Your task to perform on an android device: install app "Firefox Browser" Image 0: 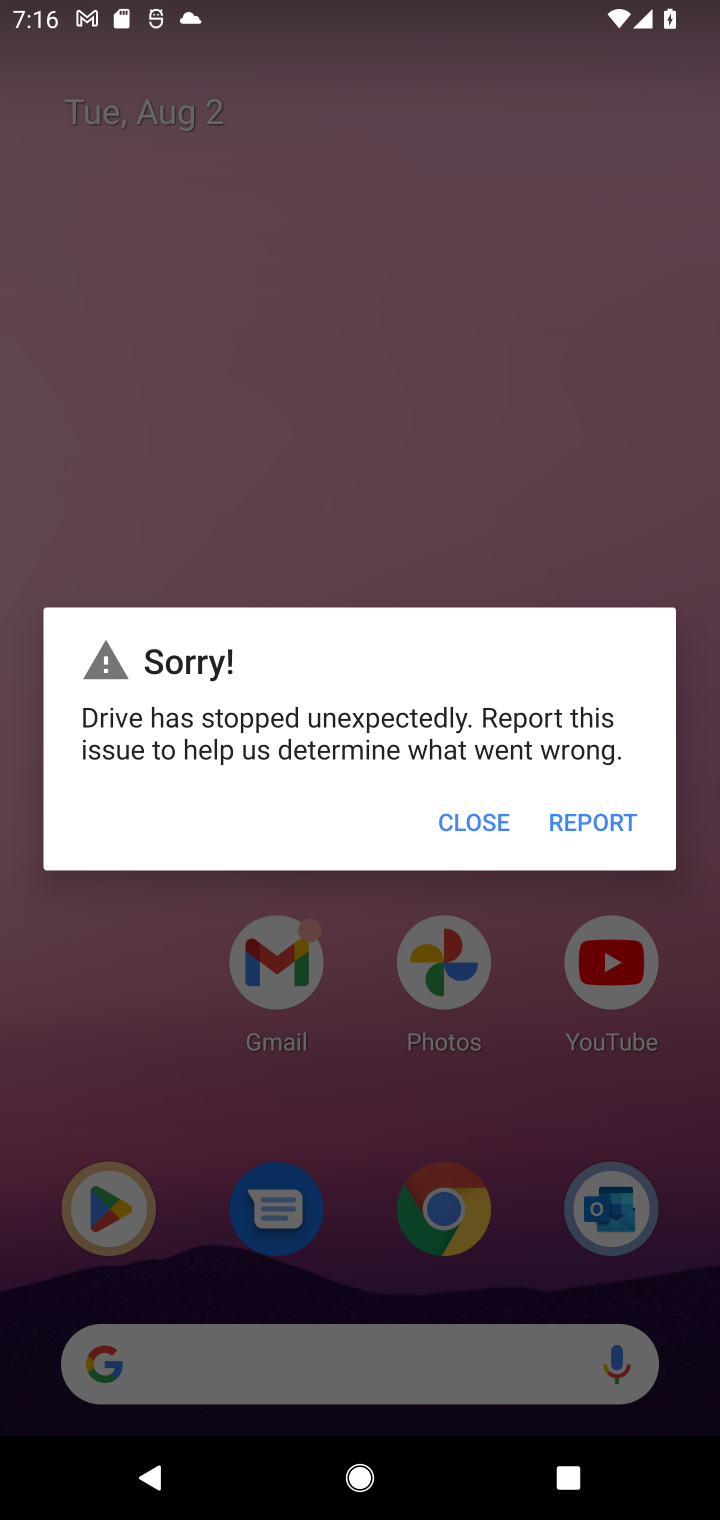
Step 0: press home button
Your task to perform on an android device: install app "Firefox Browser" Image 1: 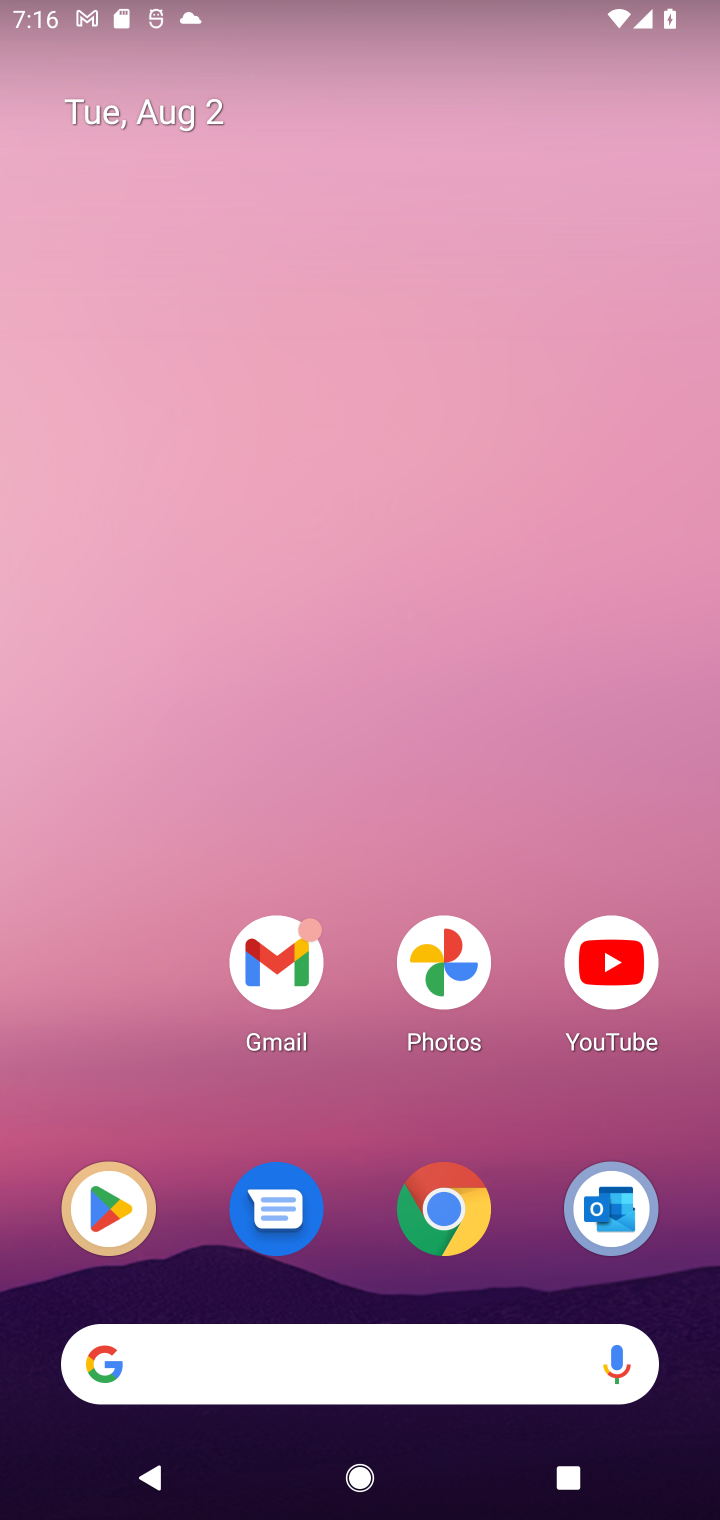
Step 1: drag from (406, 1130) to (389, 574)
Your task to perform on an android device: install app "Firefox Browser" Image 2: 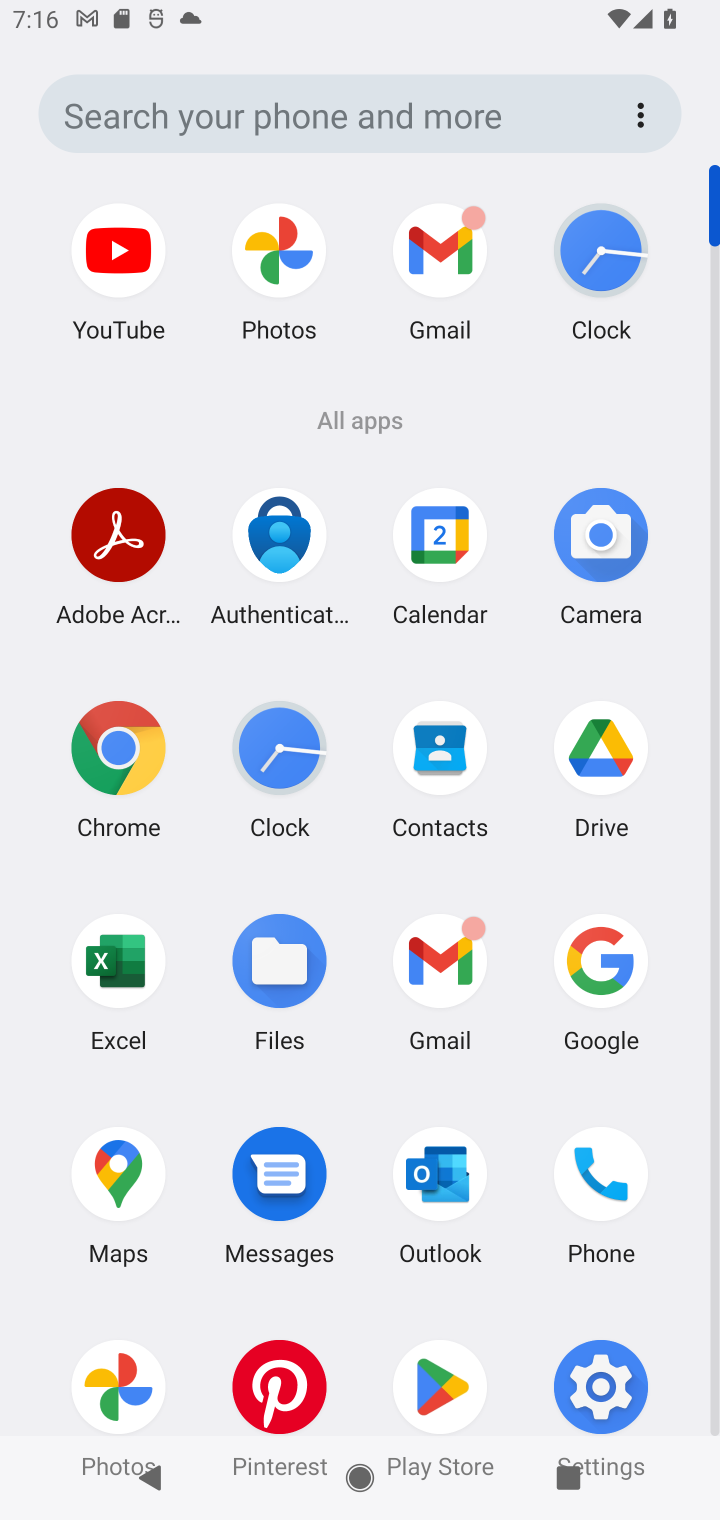
Step 2: click (445, 1384)
Your task to perform on an android device: install app "Firefox Browser" Image 3: 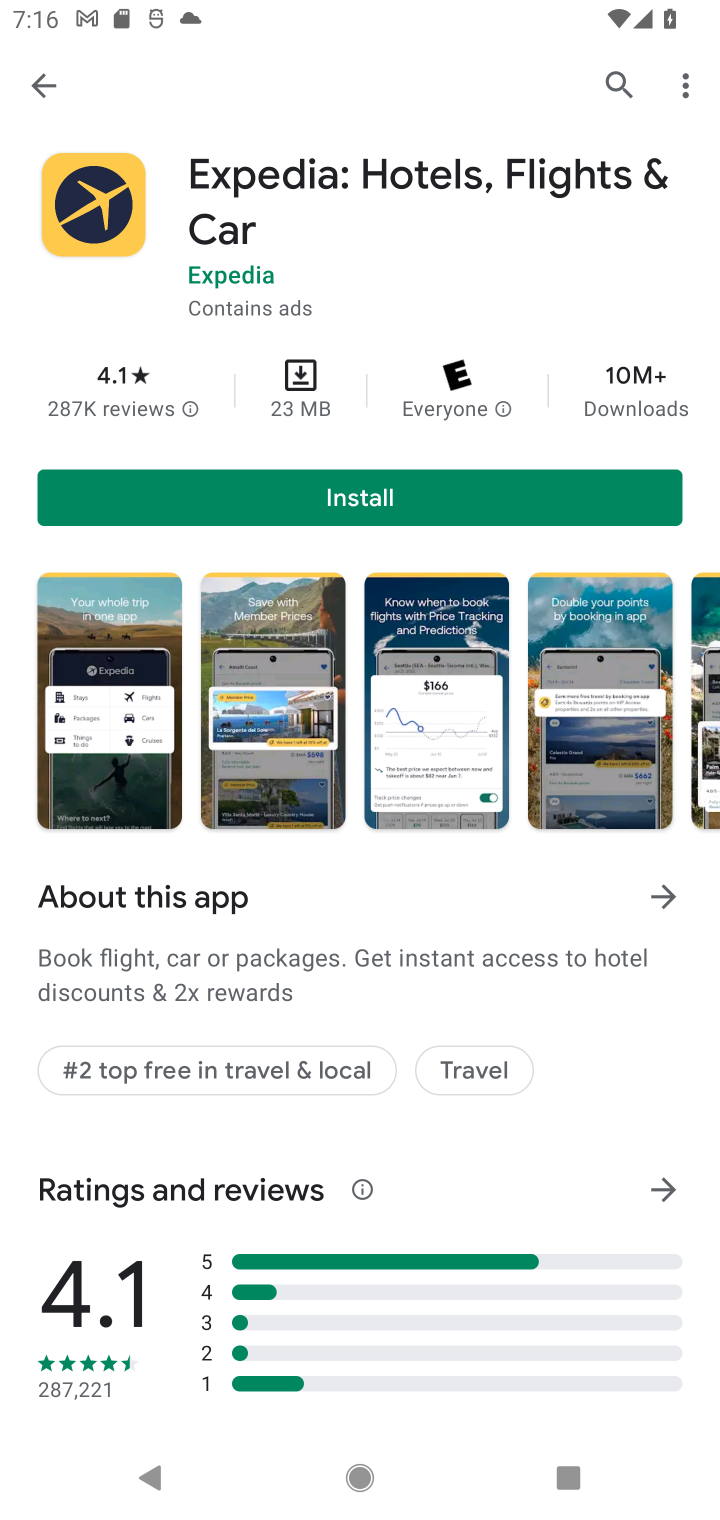
Step 3: click (608, 75)
Your task to perform on an android device: install app "Firefox Browser" Image 4: 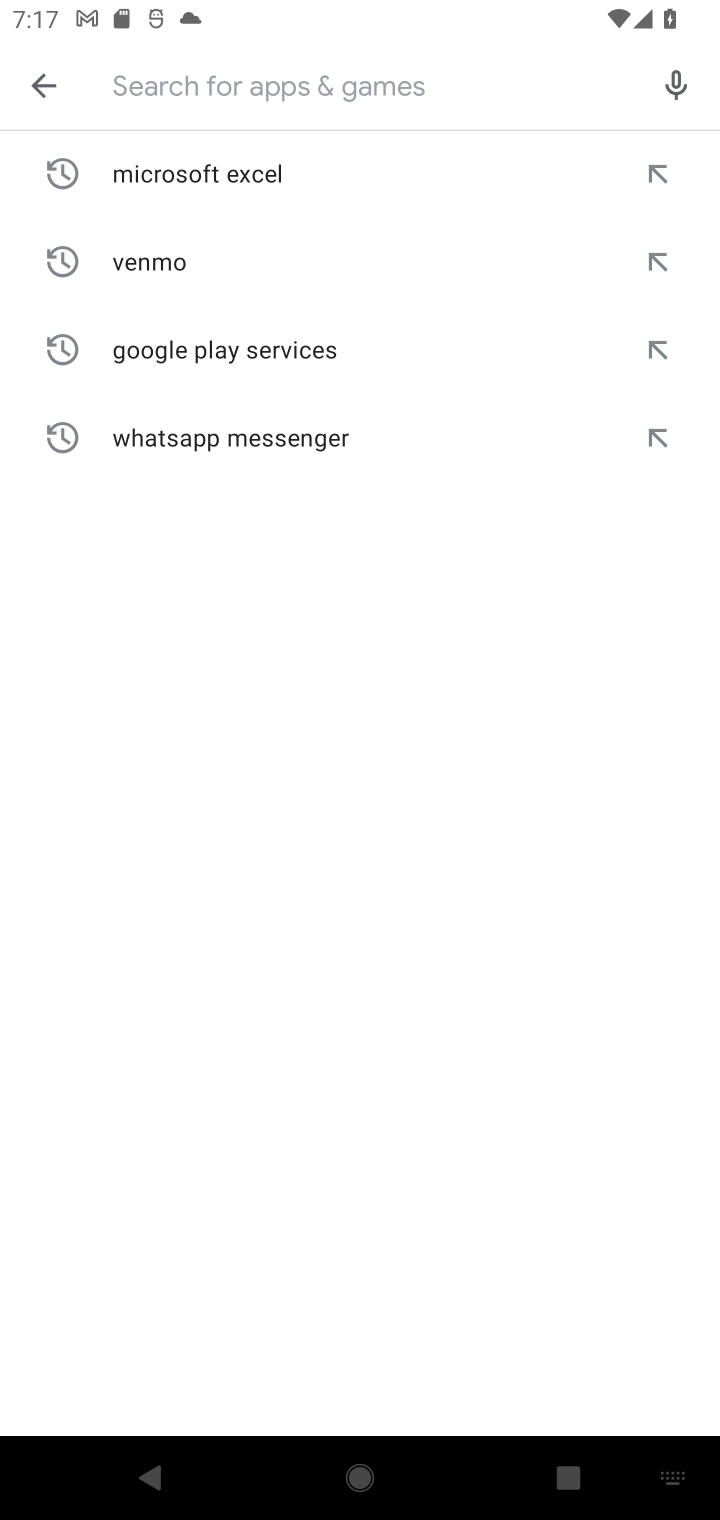
Step 4: type "Firefox Browser"
Your task to perform on an android device: install app "Firefox Browser" Image 5: 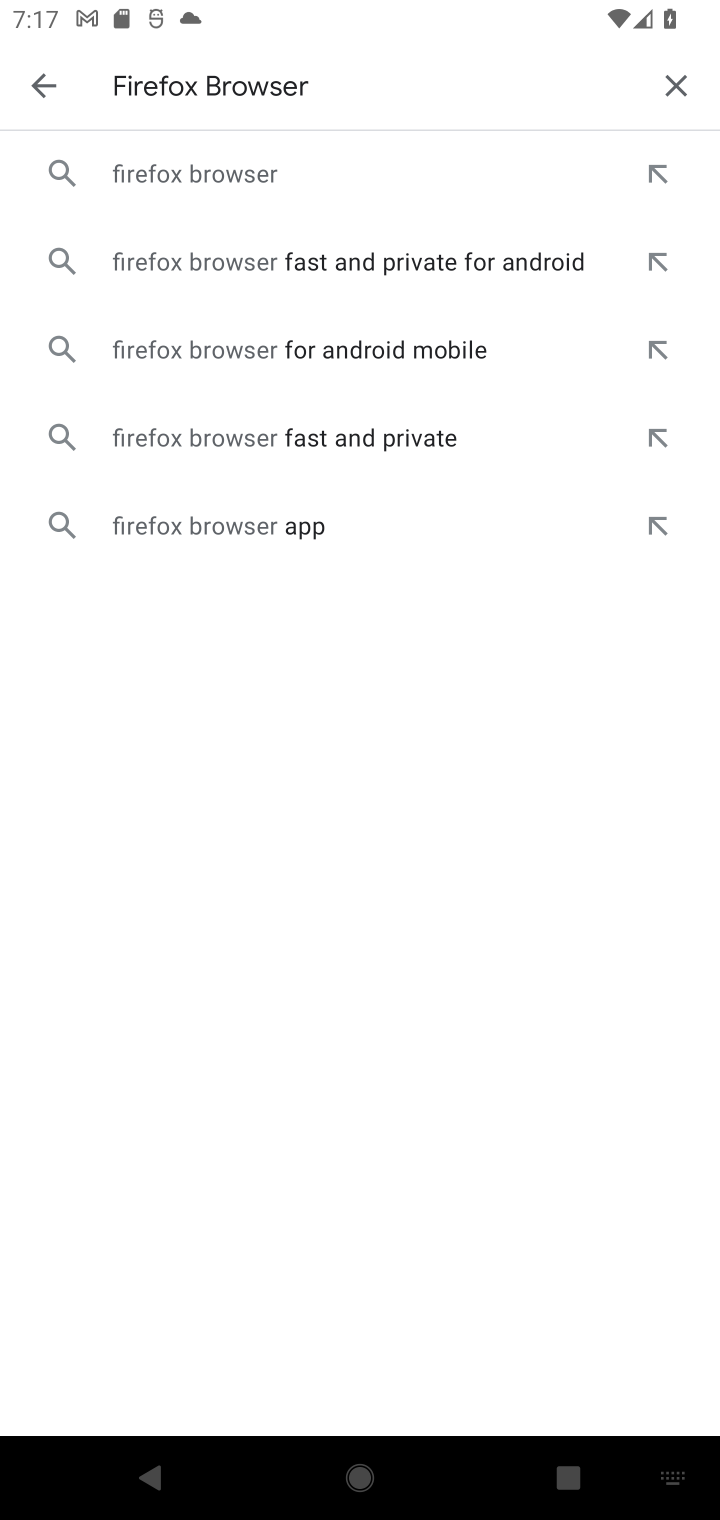
Step 5: click (213, 167)
Your task to perform on an android device: install app "Firefox Browser" Image 6: 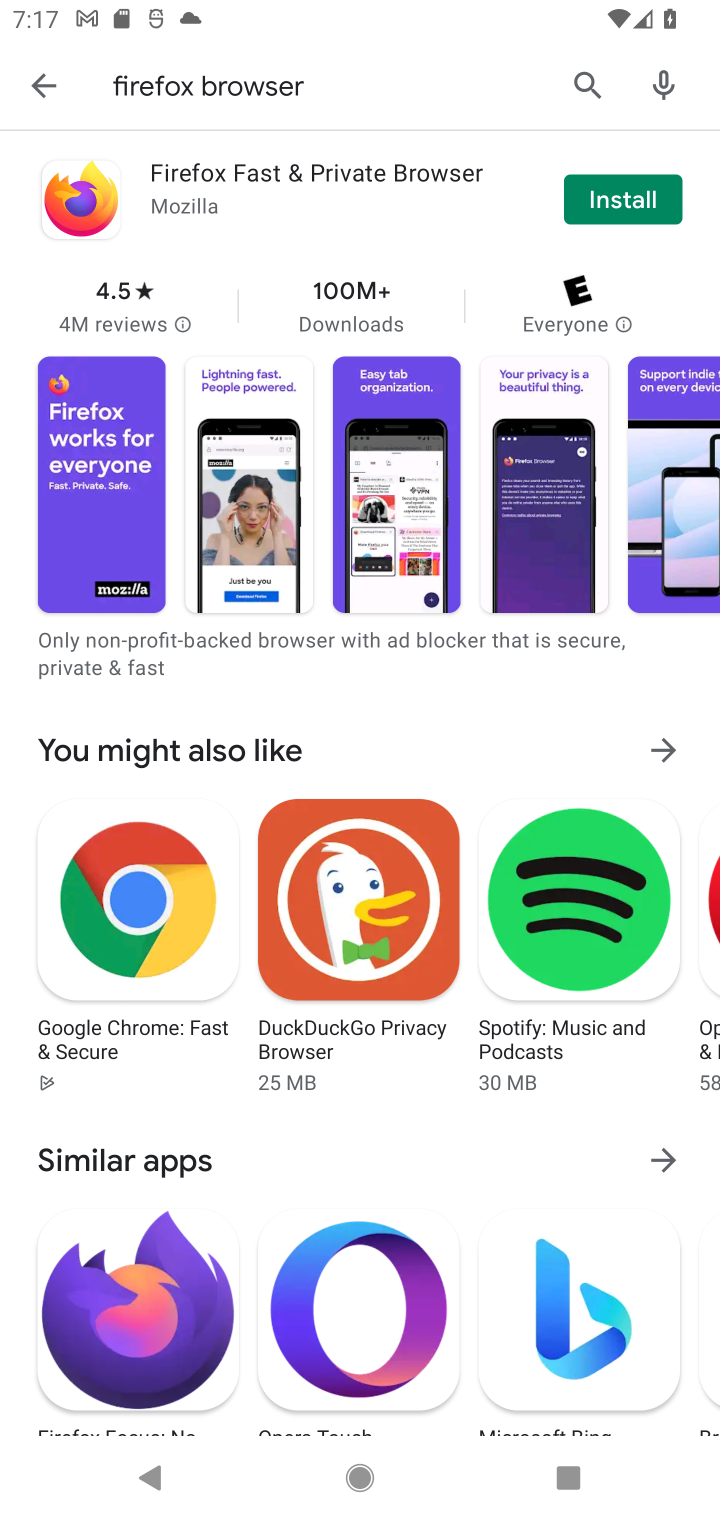
Step 6: click (632, 203)
Your task to perform on an android device: install app "Firefox Browser" Image 7: 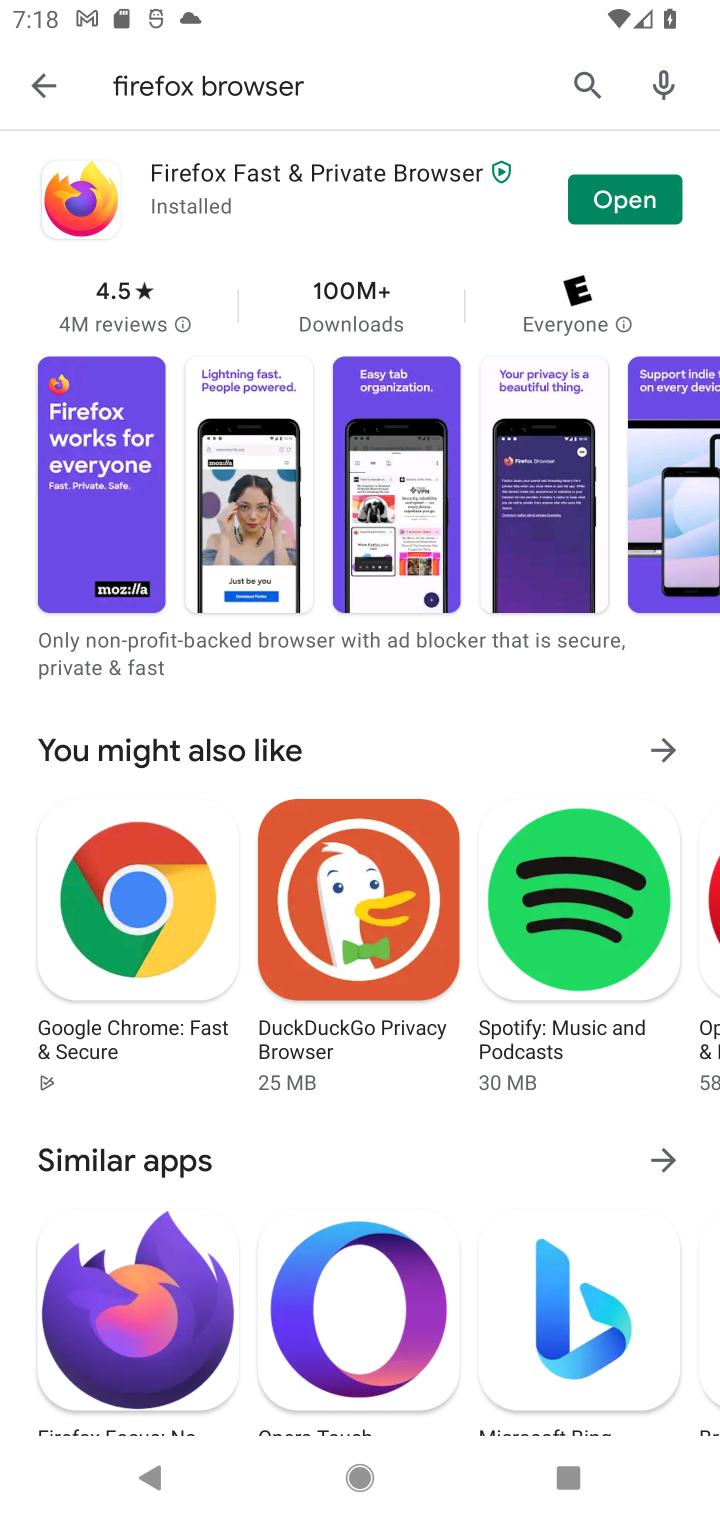
Step 7: task complete